Your task to perform on an android device: change timer sound Image 0: 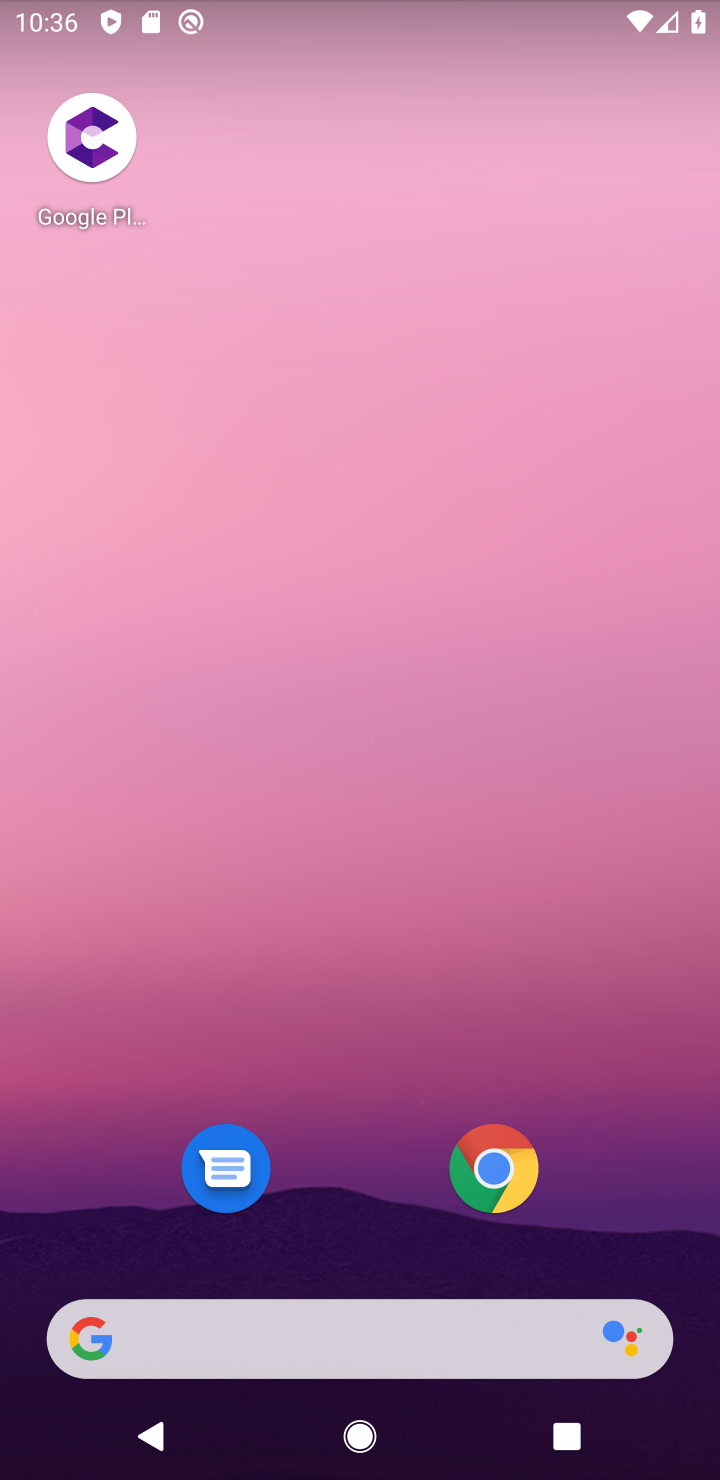
Step 0: press home button
Your task to perform on an android device: change timer sound Image 1: 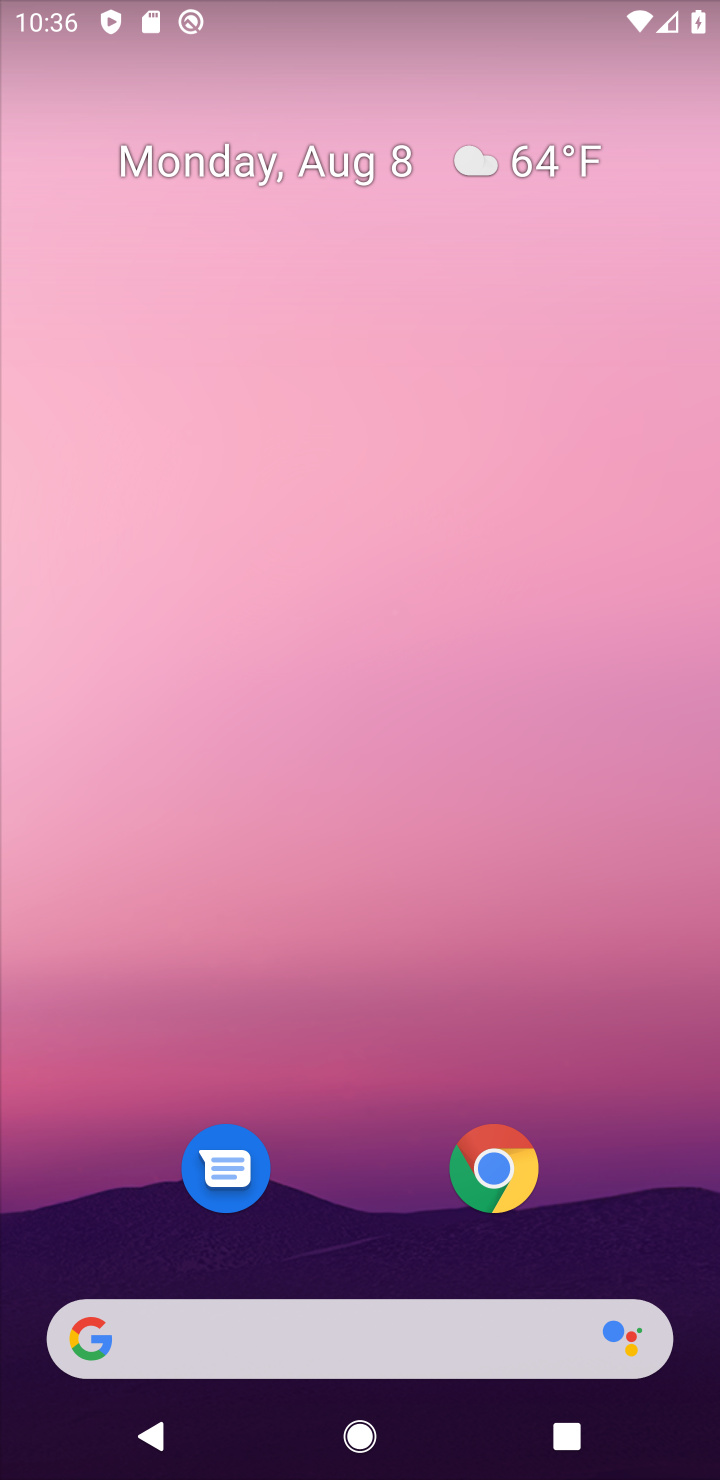
Step 1: drag from (105, 1269) to (455, 461)
Your task to perform on an android device: change timer sound Image 2: 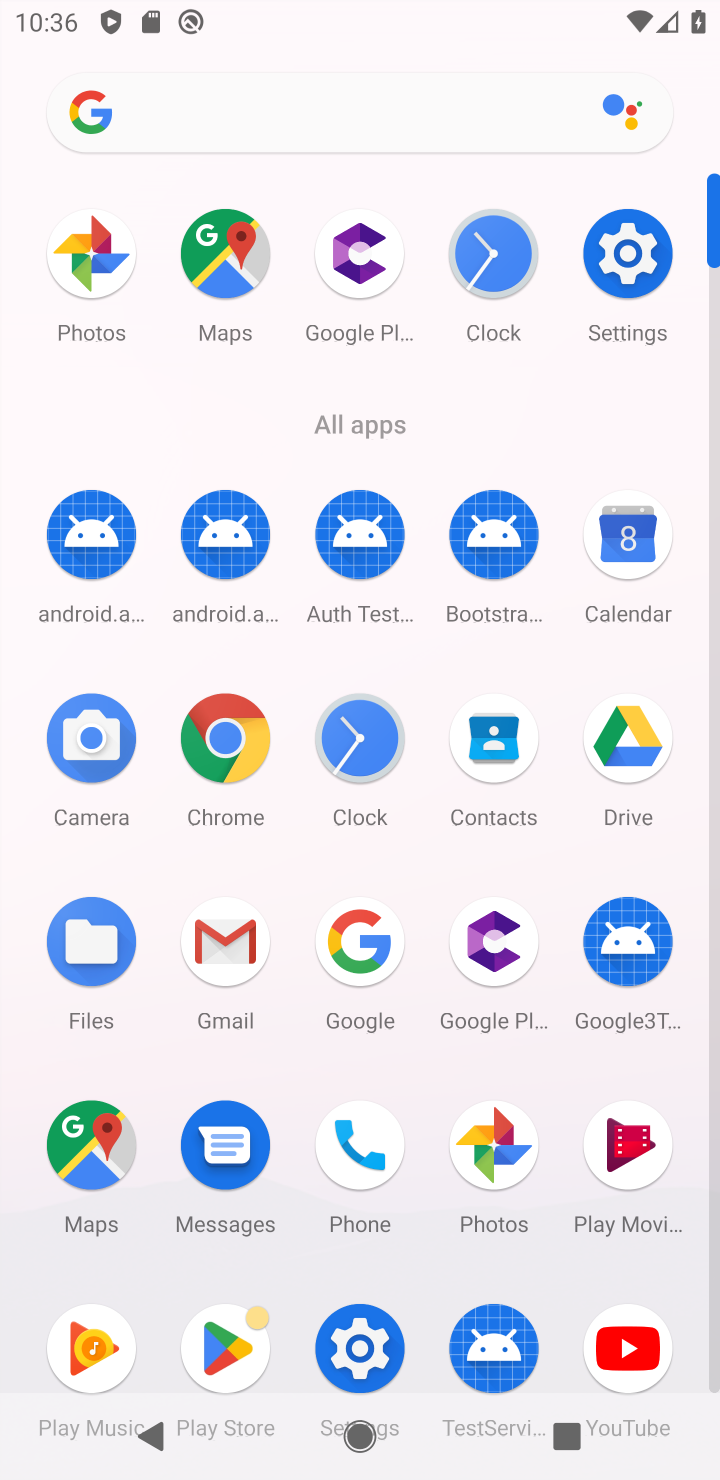
Step 2: click (504, 264)
Your task to perform on an android device: change timer sound Image 3: 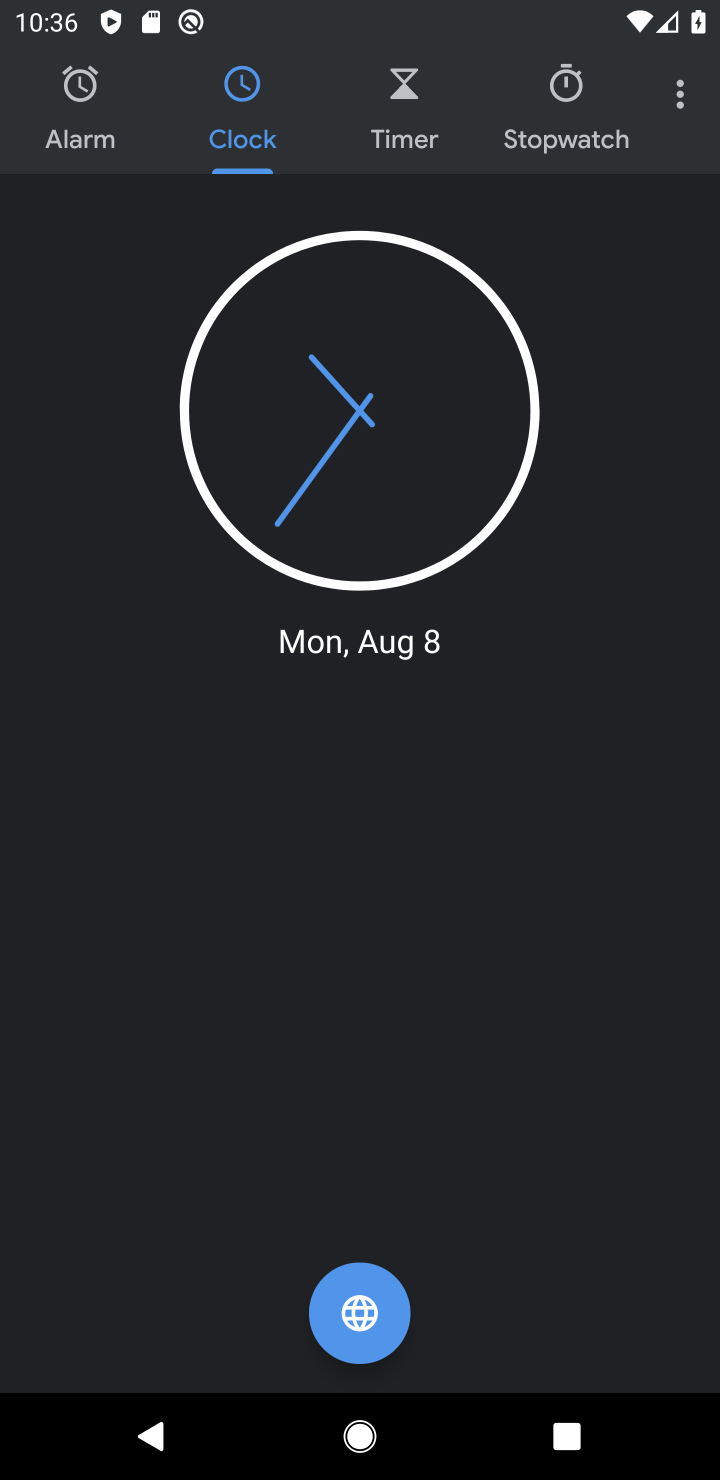
Step 3: click (701, 102)
Your task to perform on an android device: change timer sound Image 4: 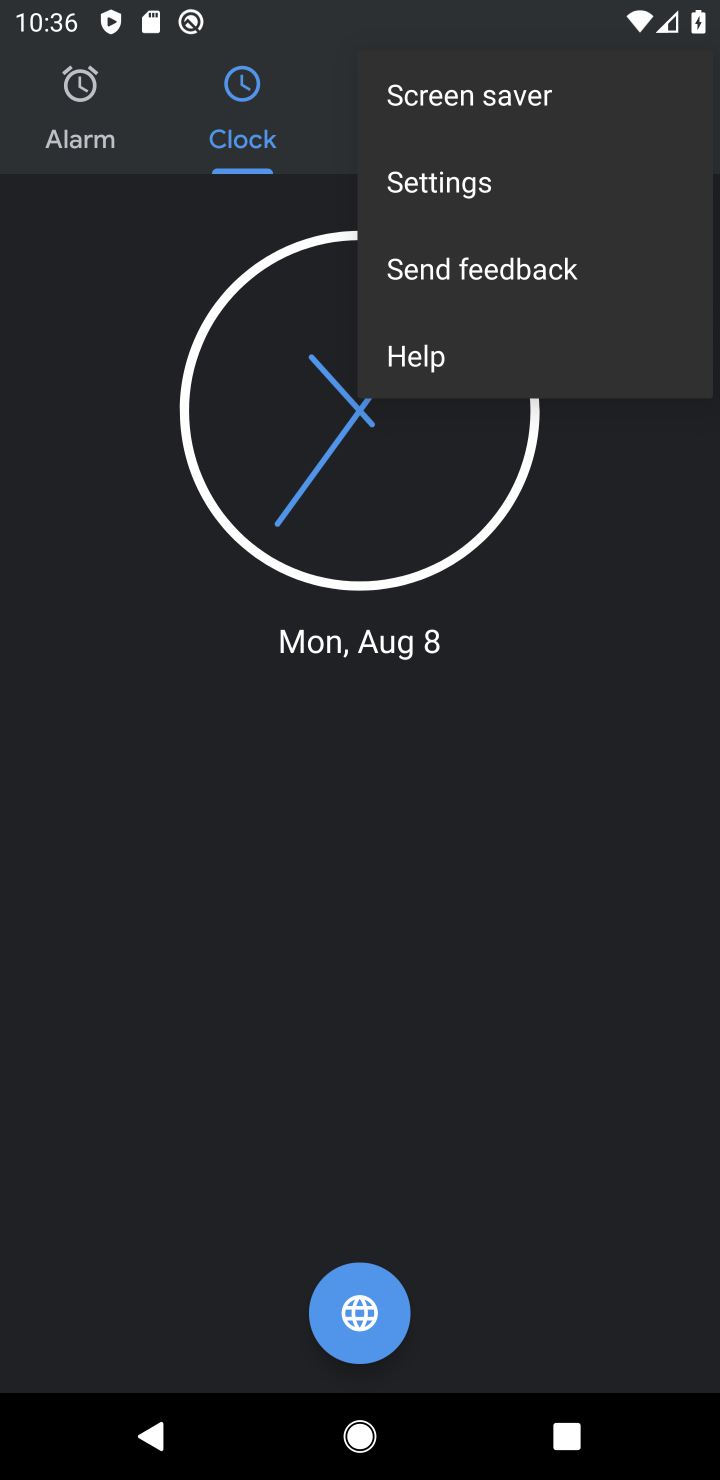
Step 4: click (483, 209)
Your task to perform on an android device: change timer sound Image 5: 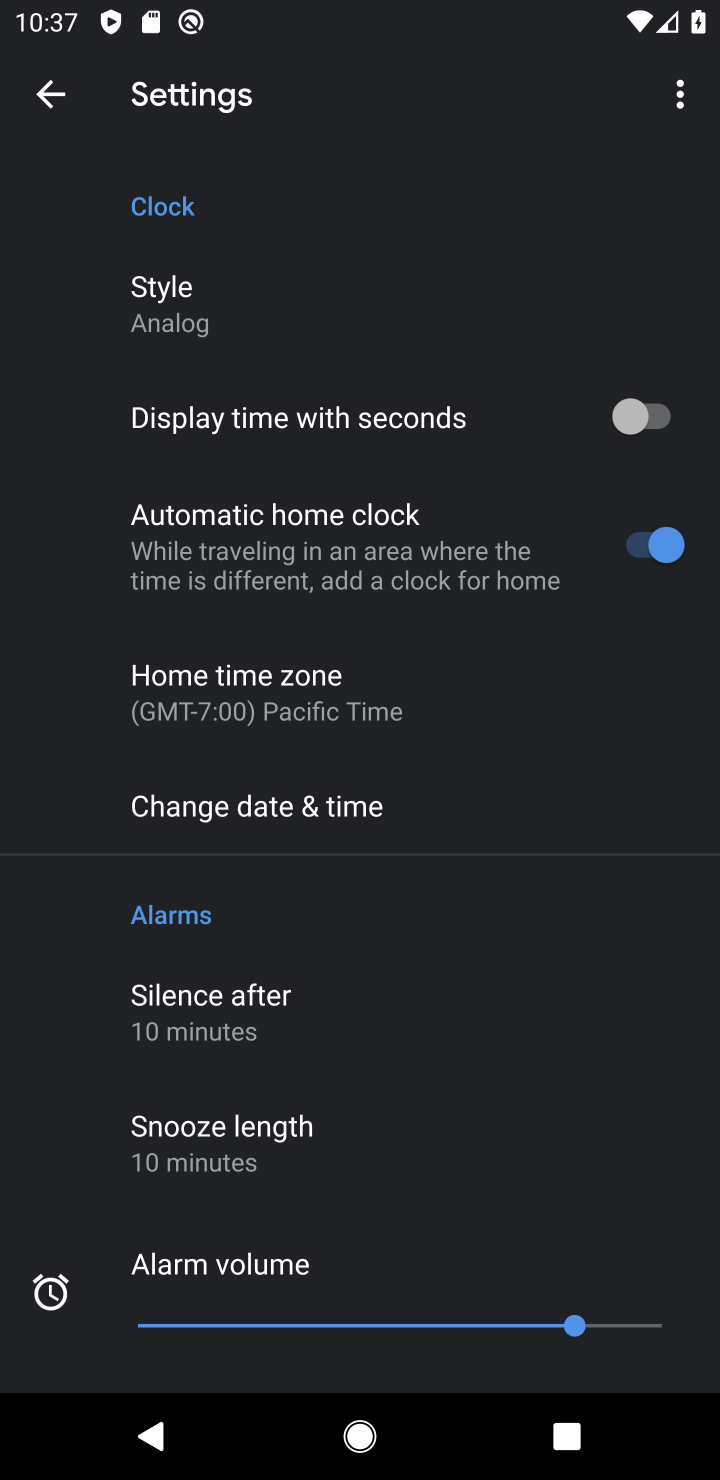
Step 5: drag from (11, 1252) to (265, 619)
Your task to perform on an android device: change timer sound Image 6: 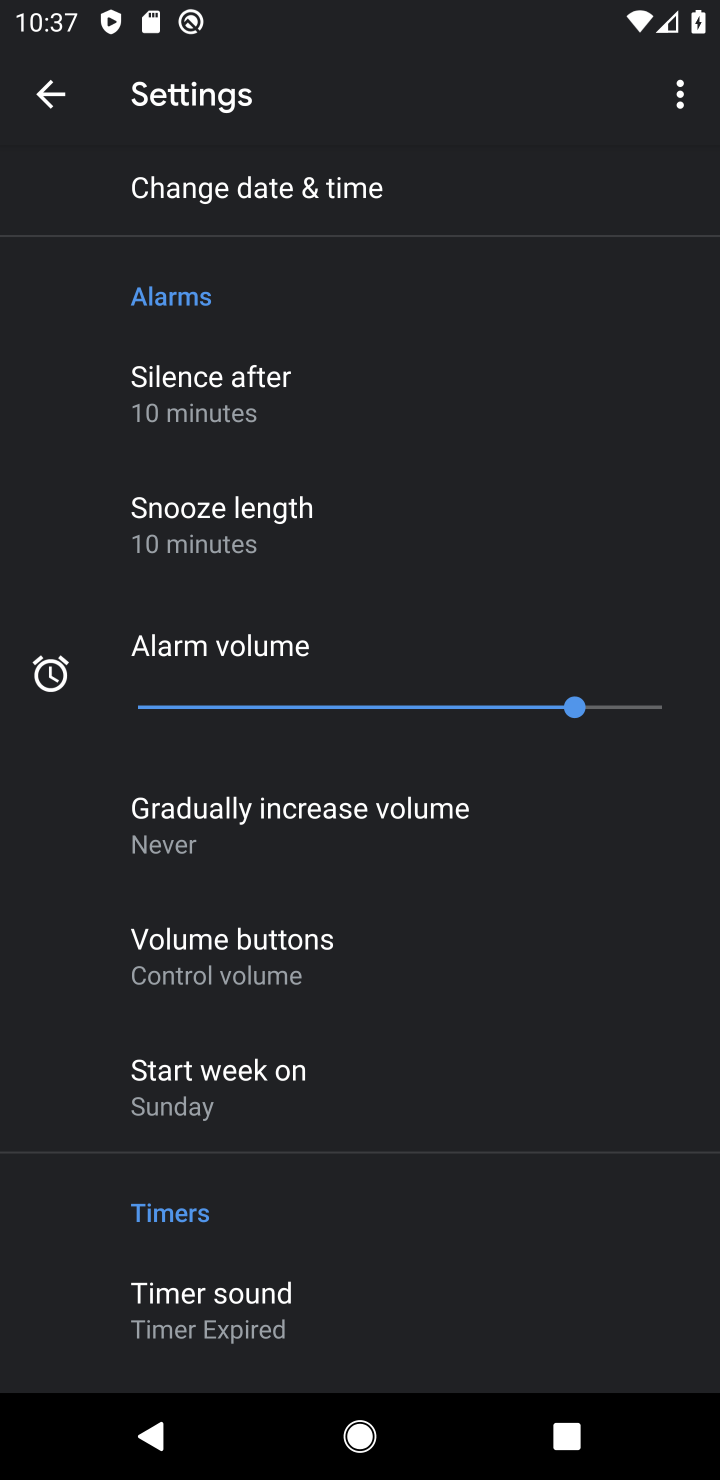
Step 6: click (177, 1313)
Your task to perform on an android device: change timer sound Image 7: 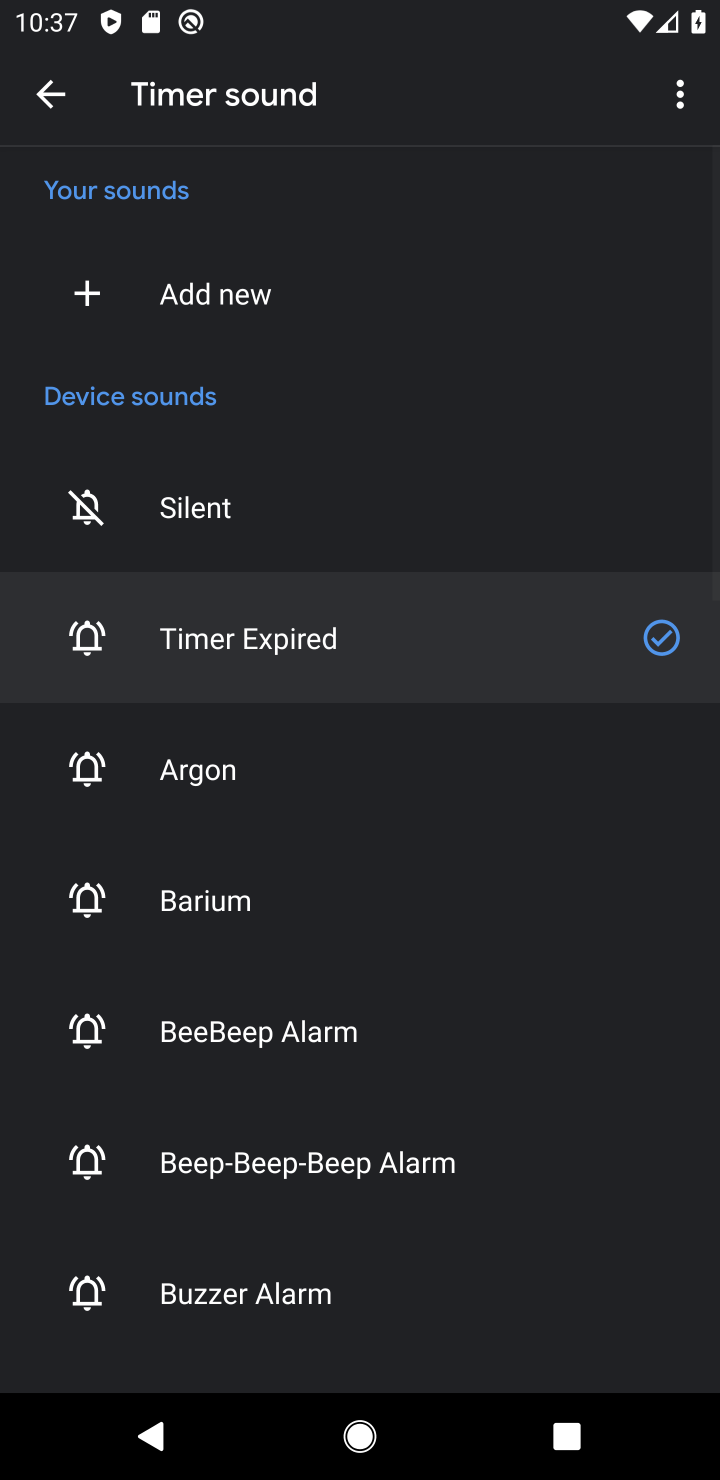
Step 7: click (272, 901)
Your task to perform on an android device: change timer sound Image 8: 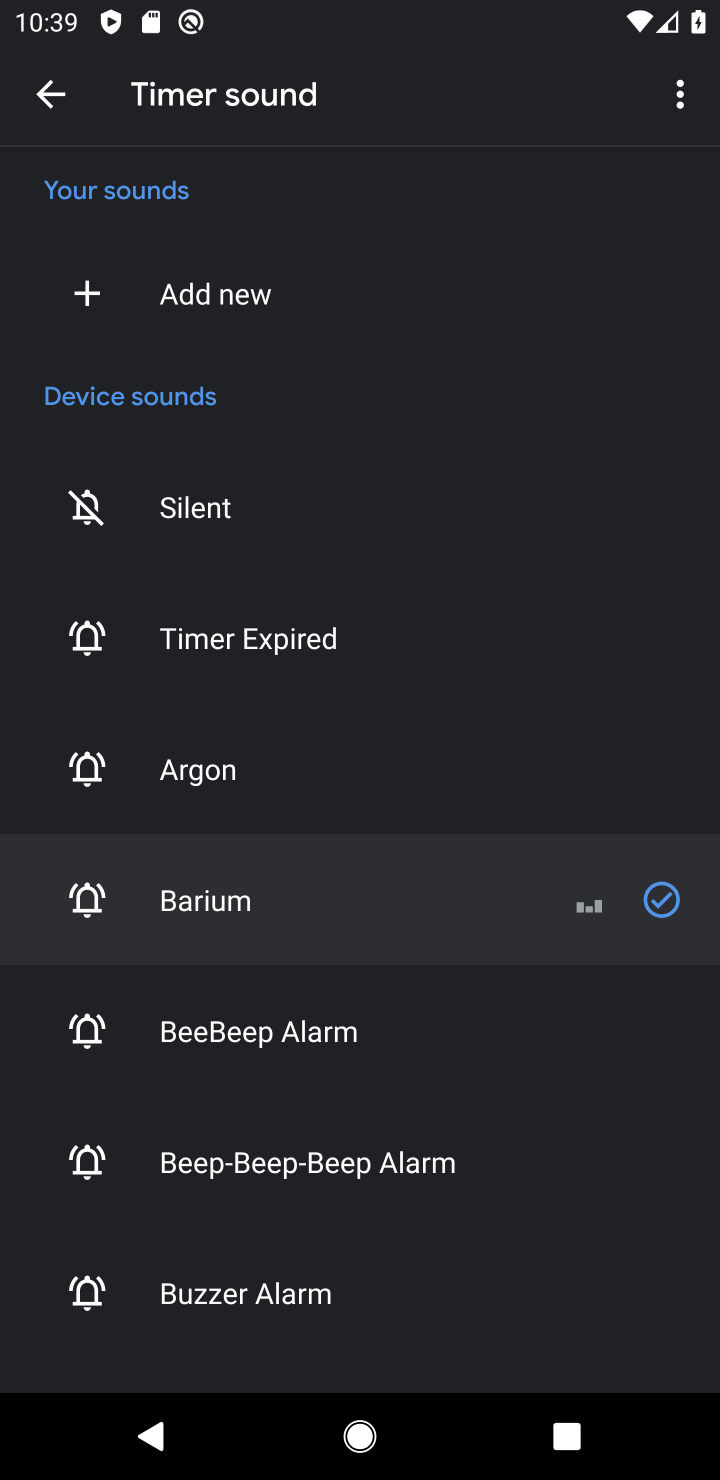
Step 8: task complete